Your task to perform on an android device: turn on the 24-hour format for clock Image 0: 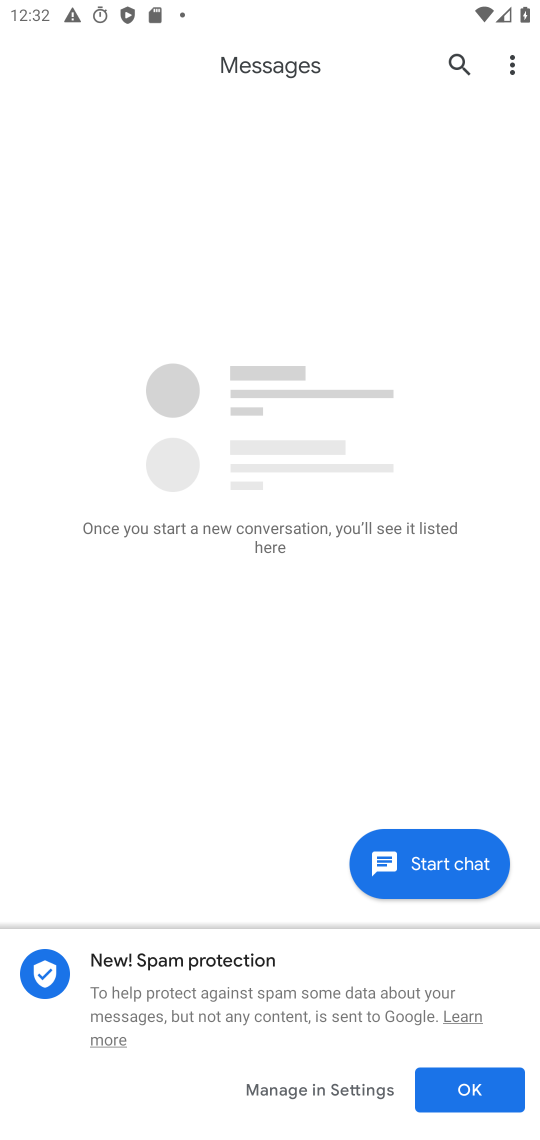
Step 0: press home button
Your task to perform on an android device: turn on the 24-hour format for clock Image 1: 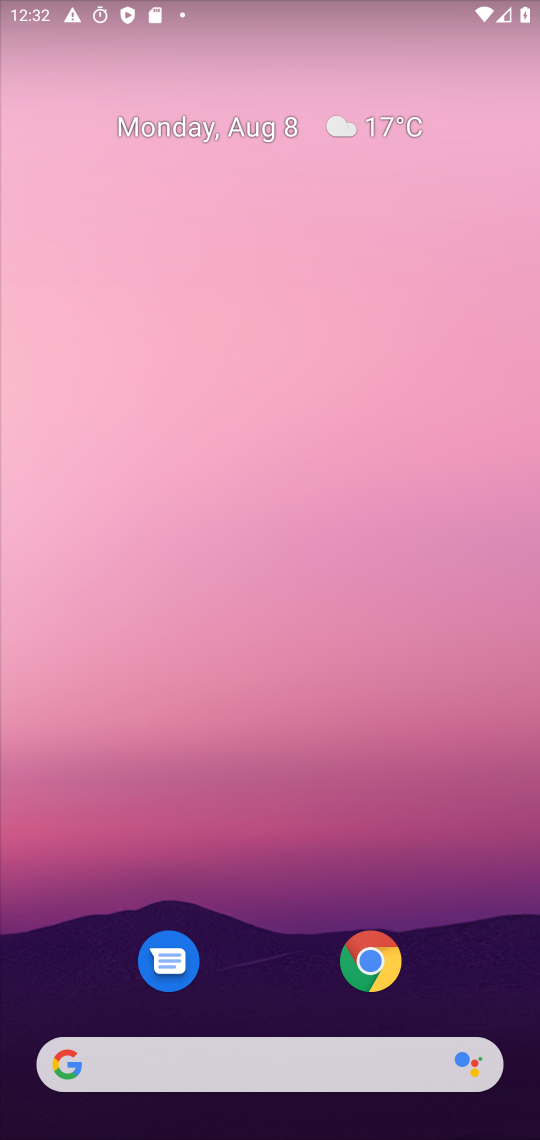
Step 1: drag from (344, 1065) to (345, 28)
Your task to perform on an android device: turn on the 24-hour format for clock Image 2: 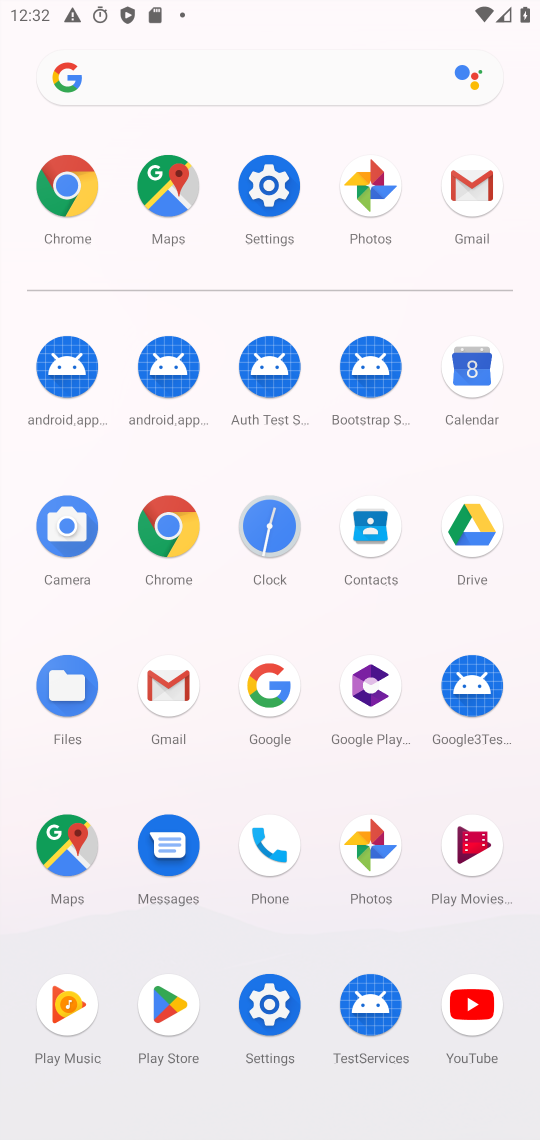
Step 2: click (280, 543)
Your task to perform on an android device: turn on the 24-hour format for clock Image 3: 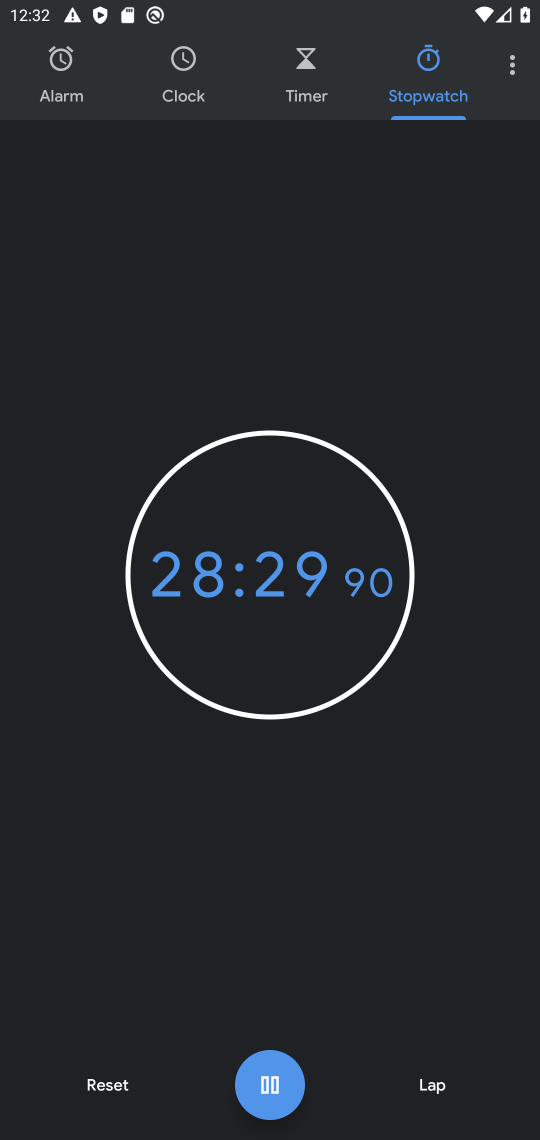
Step 3: click (502, 57)
Your task to perform on an android device: turn on the 24-hour format for clock Image 4: 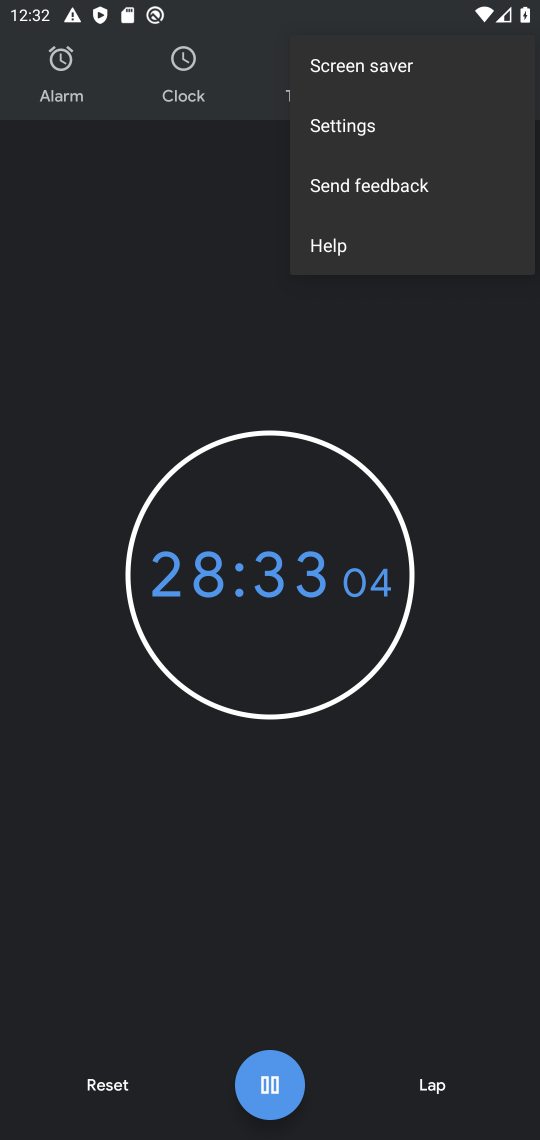
Step 4: click (332, 138)
Your task to perform on an android device: turn on the 24-hour format for clock Image 5: 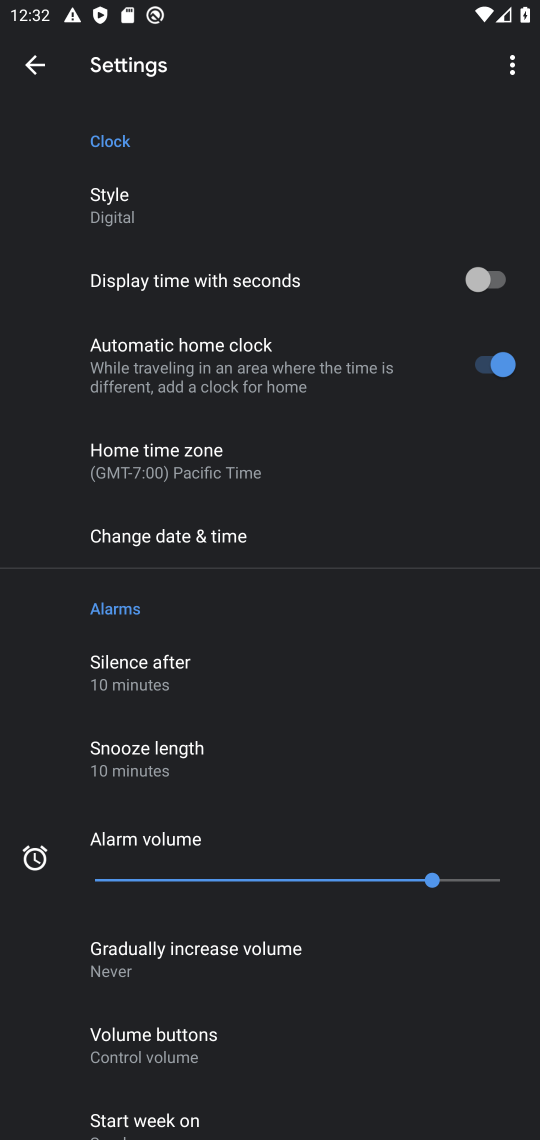
Step 5: click (233, 524)
Your task to perform on an android device: turn on the 24-hour format for clock Image 6: 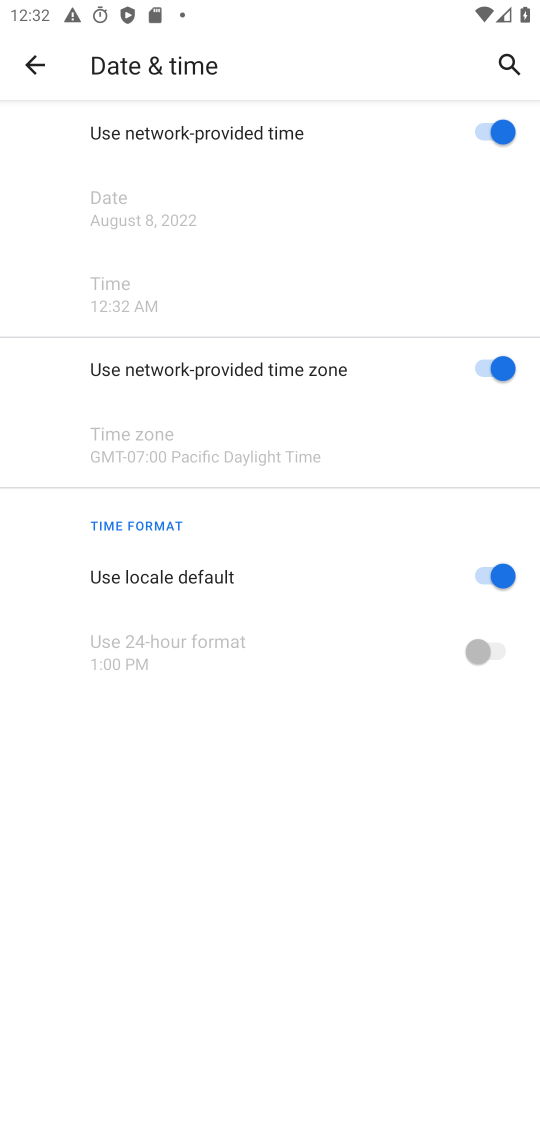
Step 6: click (477, 570)
Your task to perform on an android device: turn on the 24-hour format for clock Image 7: 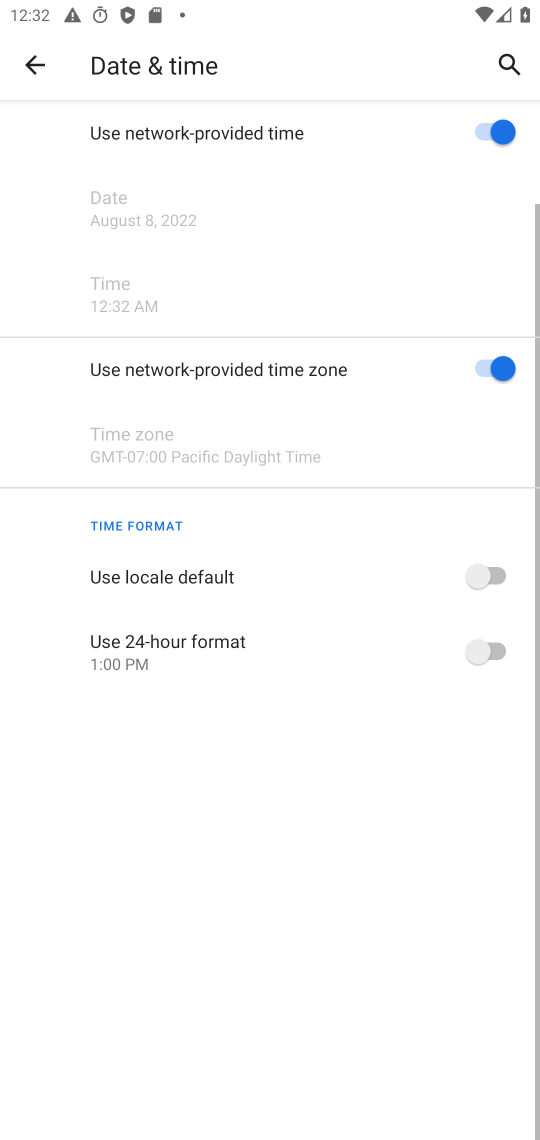
Step 7: click (491, 643)
Your task to perform on an android device: turn on the 24-hour format for clock Image 8: 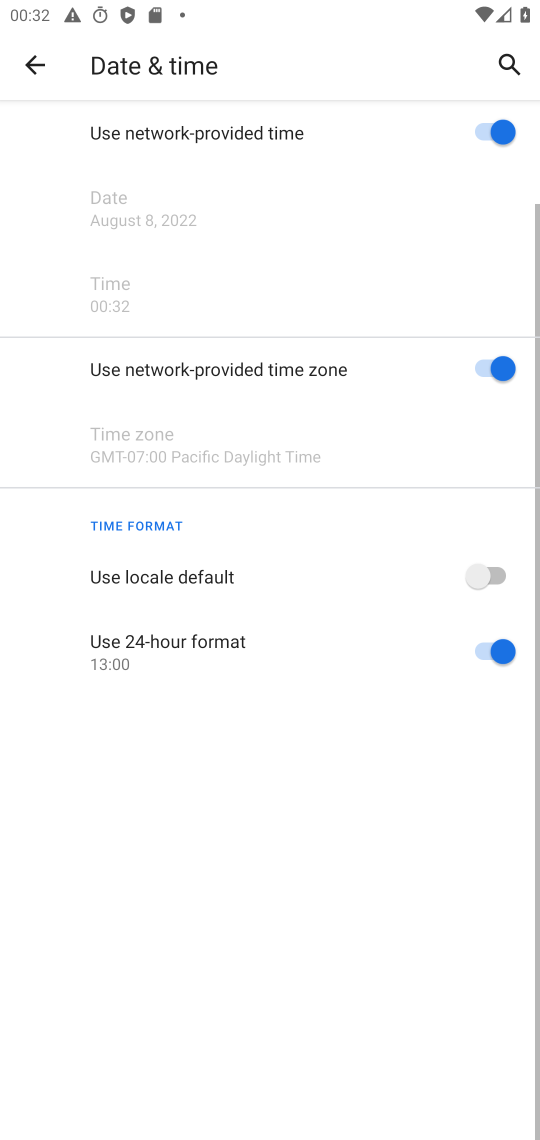
Step 8: task complete